Your task to perform on an android device: turn off sleep mode Image 0: 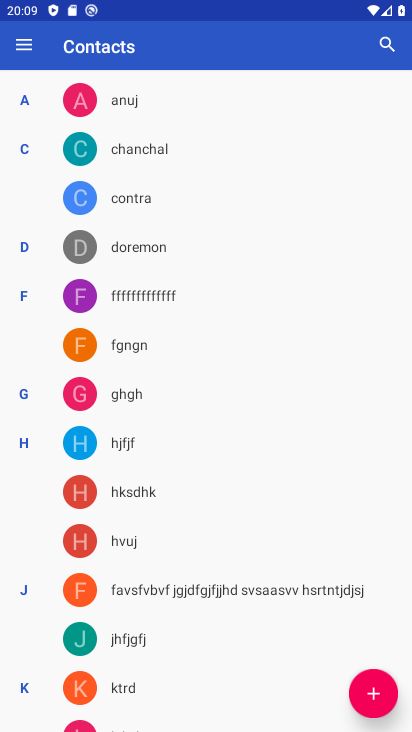
Step 0: press home button
Your task to perform on an android device: turn off sleep mode Image 1: 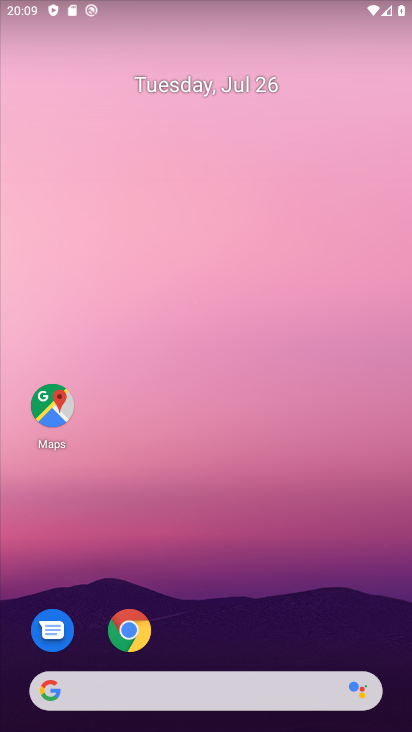
Step 1: drag from (365, 618) to (396, 221)
Your task to perform on an android device: turn off sleep mode Image 2: 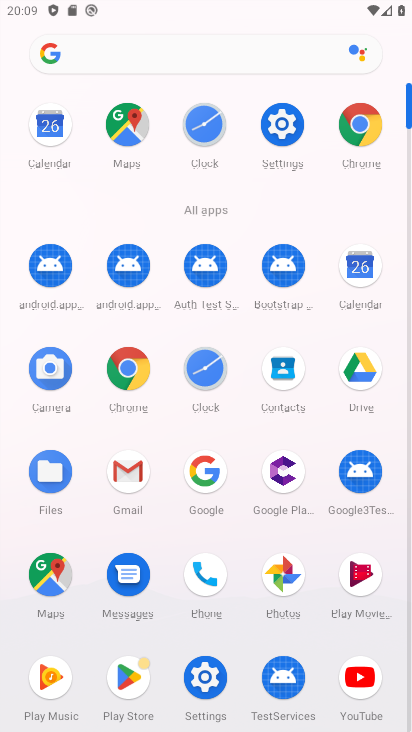
Step 2: click (285, 127)
Your task to perform on an android device: turn off sleep mode Image 3: 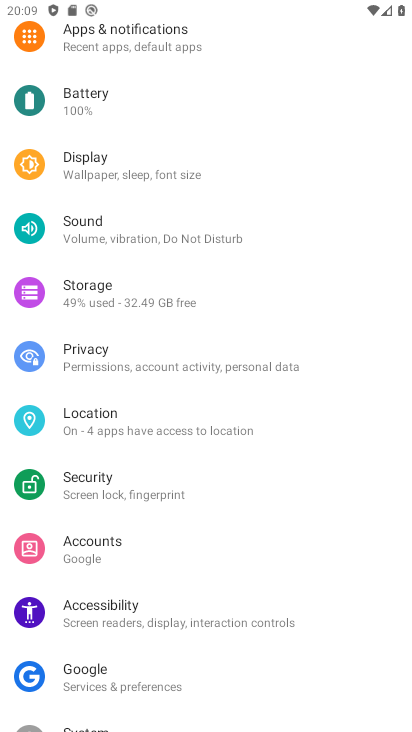
Step 3: drag from (325, 222) to (334, 295)
Your task to perform on an android device: turn off sleep mode Image 4: 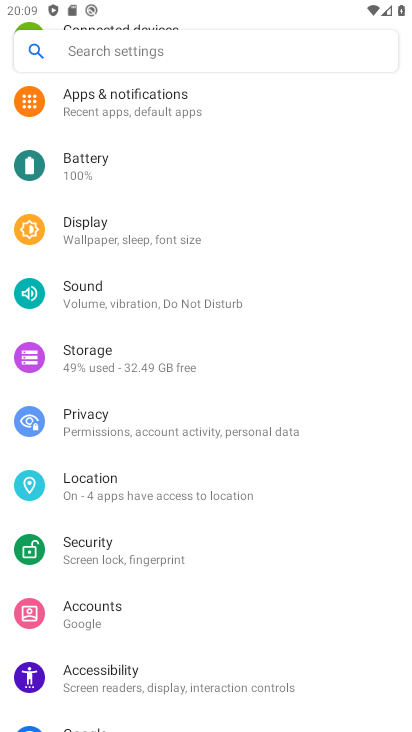
Step 4: drag from (339, 195) to (341, 288)
Your task to perform on an android device: turn off sleep mode Image 5: 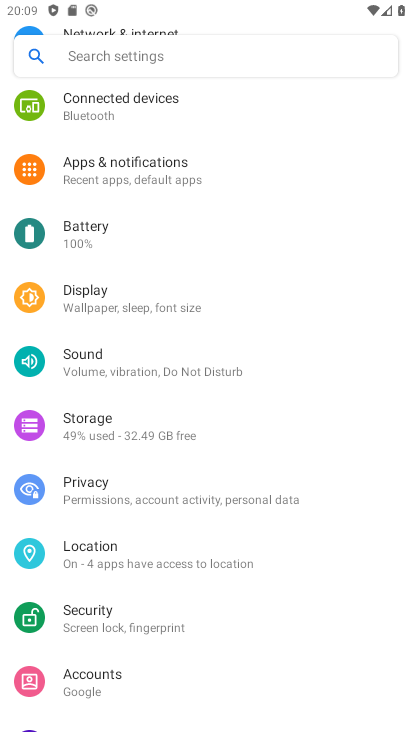
Step 5: drag from (341, 180) to (354, 357)
Your task to perform on an android device: turn off sleep mode Image 6: 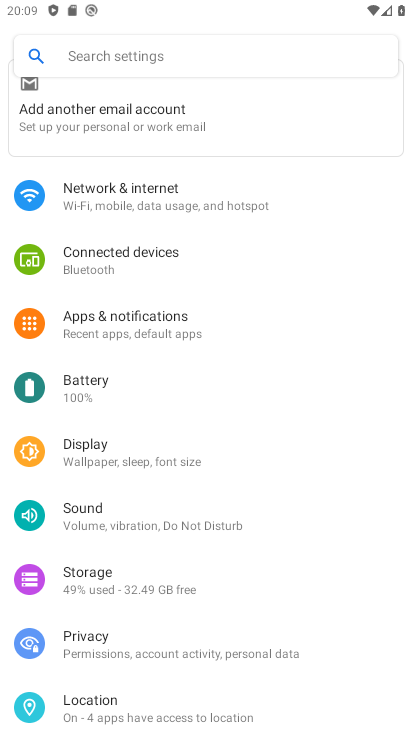
Step 6: drag from (334, 201) to (332, 426)
Your task to perform on an android device: turn off sleep mode Image 7: 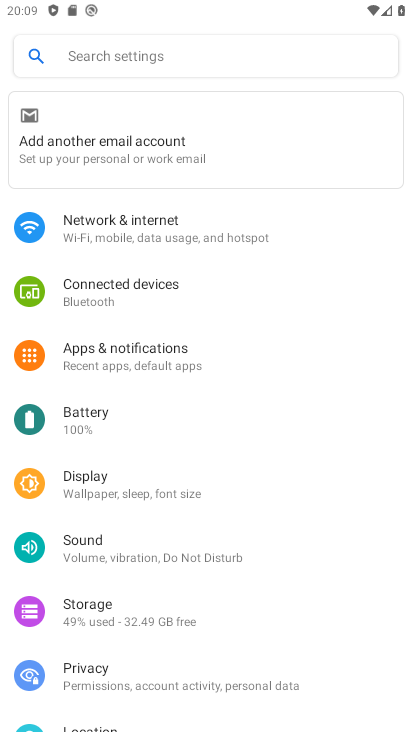
Step 7: click (181, 479)
Your task to perform on an android device: turn off sleep mode Image 8: 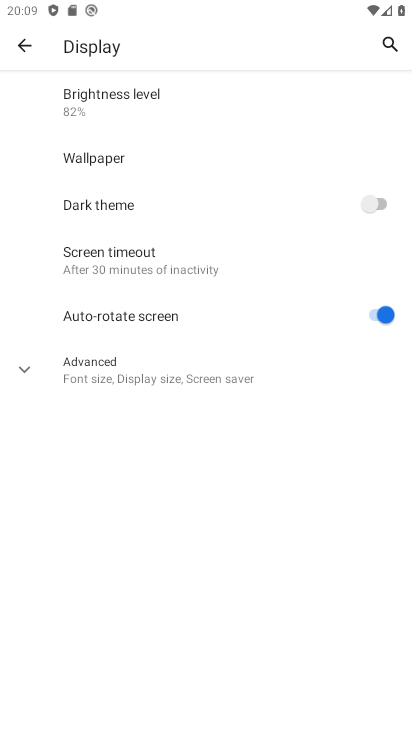
Step 8: click (192, 375)
Your task to perform on an android device: turn off sleep mode Image 9: 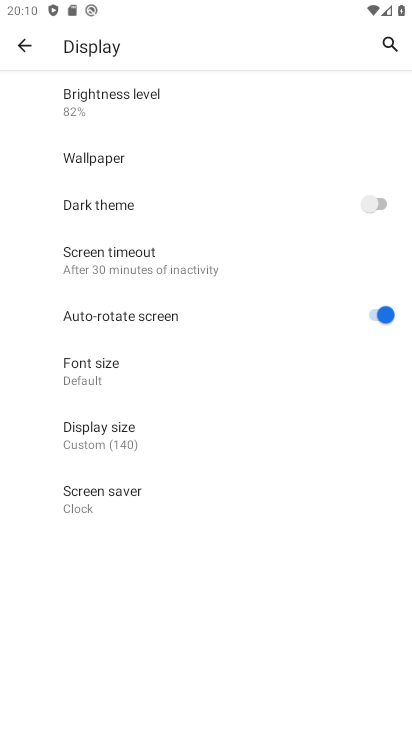
Step 9: task complete